Your task to perform on an android device: Turn on the flashlight Image 0: 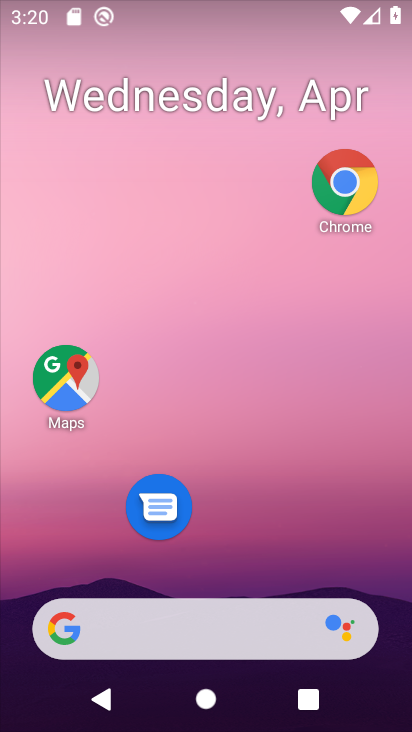
Step 0: drag from (220, 505) to (240, 88)
Your task to perform on an android device: Turn on the flashlight Image 1: 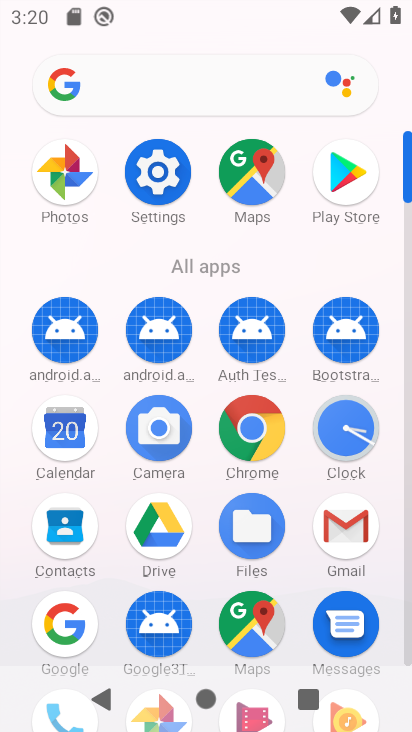
Step 1: click (166, 190)
Your task to perform on an android device: Turn on the flashlight Image 2: 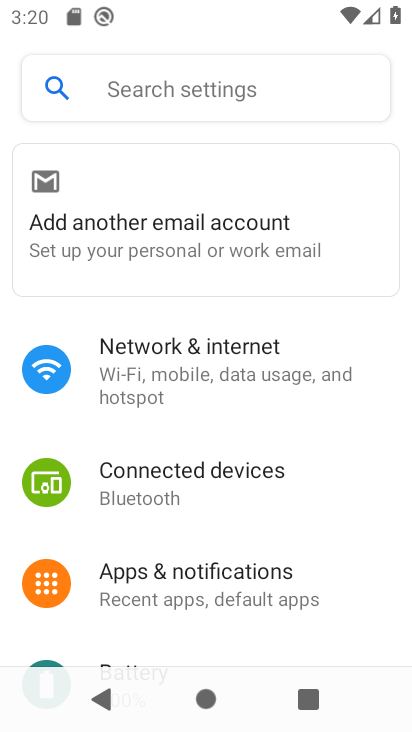
Step 2: click (219, 81)
Your task to perform on an android device: Turn on the flashlight Image 3: 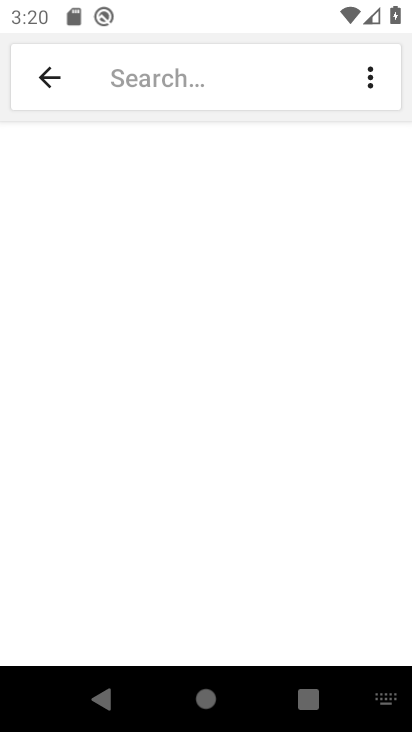
Step 3: type "flashlight"
Your task to perform on an android device: Turn on the flashlight Image 4: 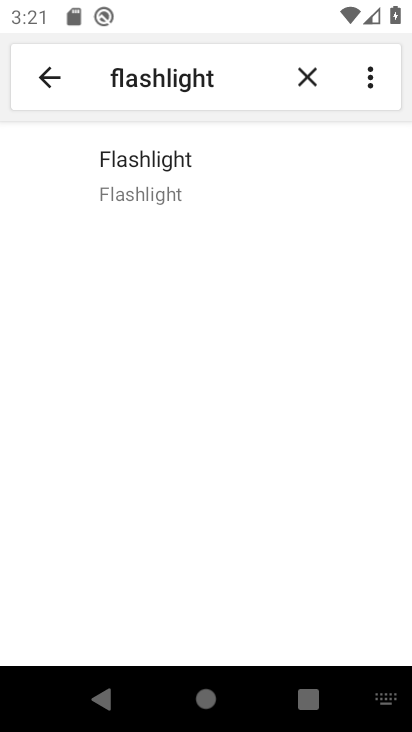
Step 4: click (158, 178)
Your task to perform on an android device: Turn on the flashlight Image 5: 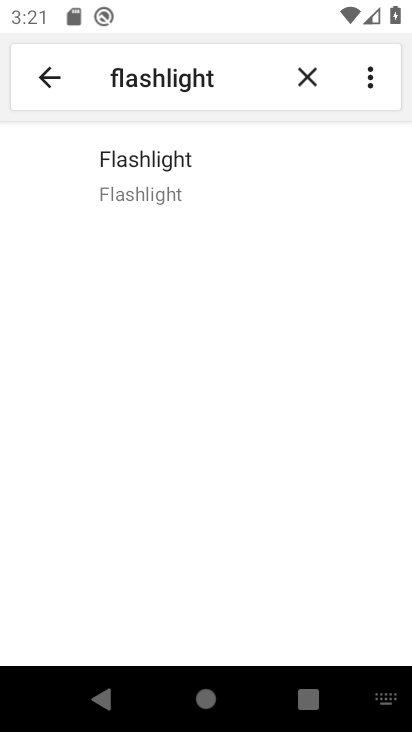
Step 5: click (159, 177)
Your task to perform on an android device: Turn on the flashlight Image 6: 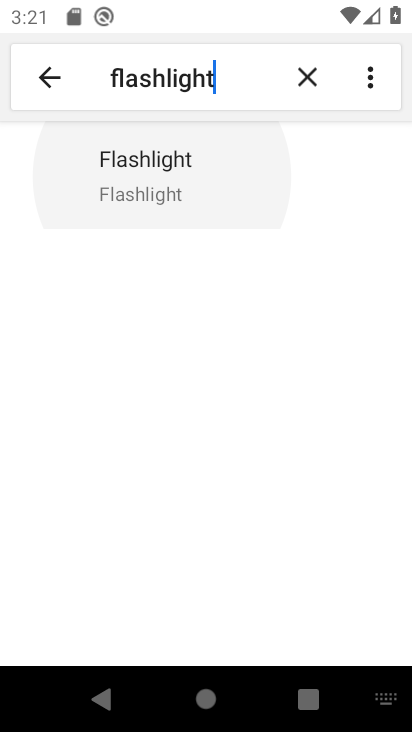
Step 6: click (159, 177)
Your task to perform on an android device: Turn on the flashlight Image 7: 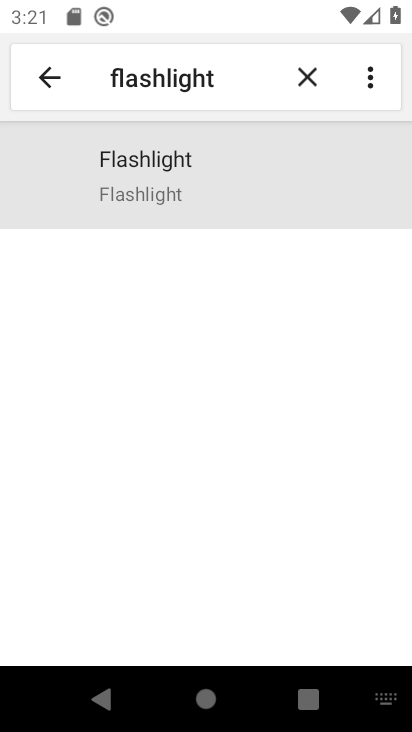
Step 7: click (159, 176)
Your task to perform on an android device: Turn on the flashlight Image 8: 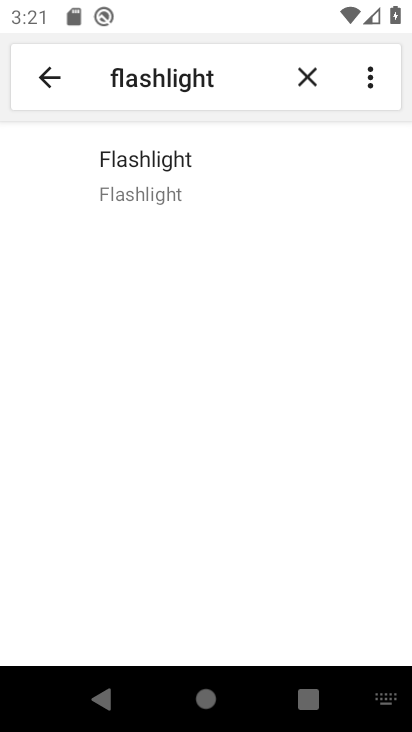
Step 8: click (159, 176)
Your task to perform on an android device: Turn on the flashlight Image 9: 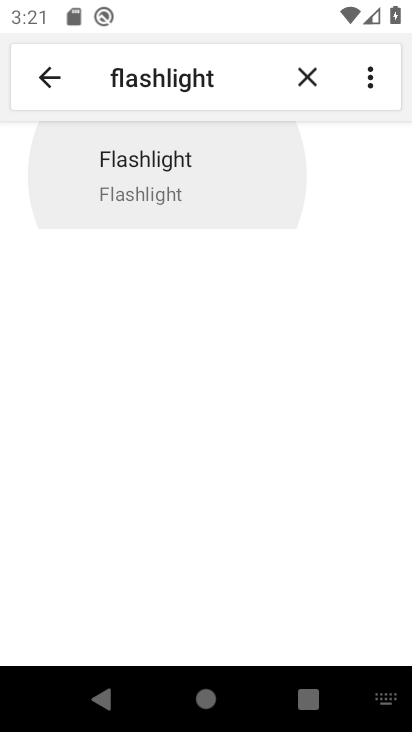
Step 9: click (159, 176)
Your task to perform on an android device: Turn on the flashlight Image 10: 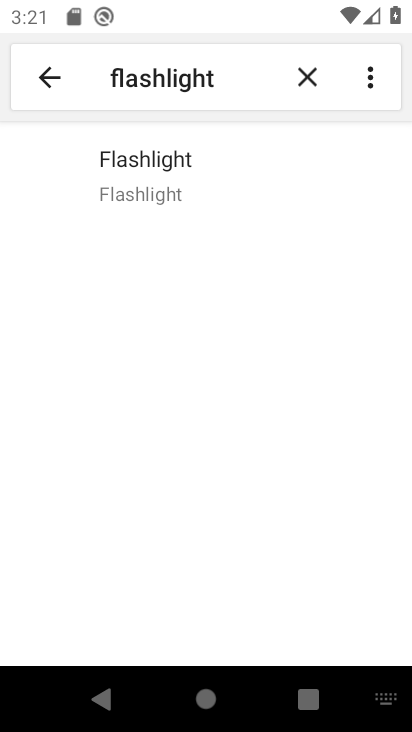
Step 10: task complete